Your task to perform on an android device: Go to CNN.com Image 0: 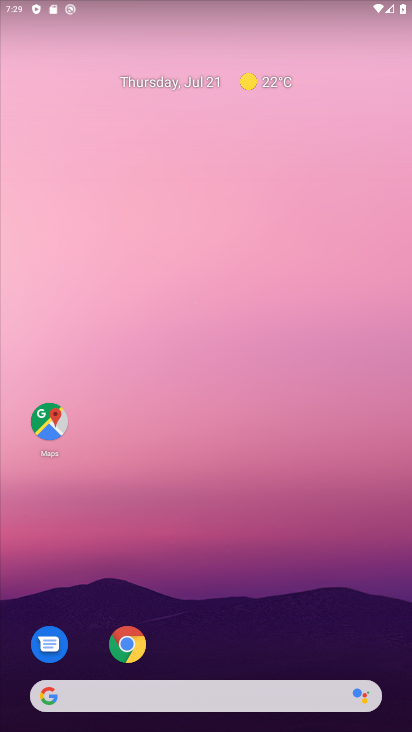
Step 0: drag from (358, 614) to (361, 146)
Your task to perform on an android device: Go to CNN.com Image 1: 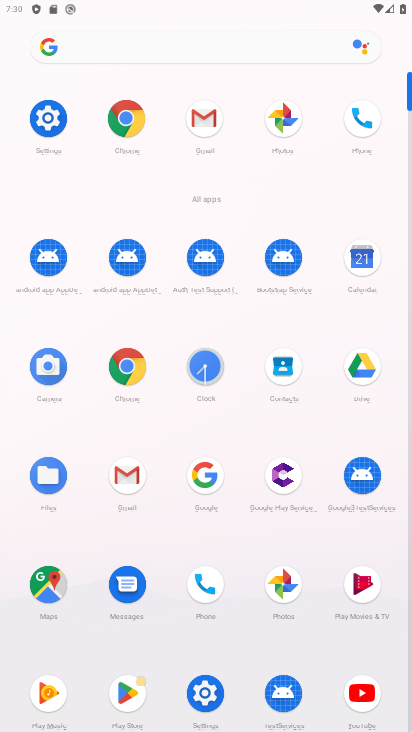
Step 1: click (124, 368)
Your task to perform on an android device: Go to CNN.com Image 2: 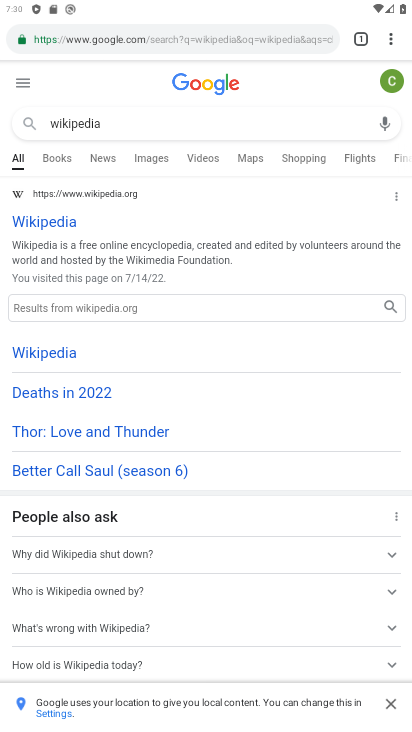
Step 2: click (147, 39)
Your task to perform on an android device: Go to CNN.com Image 3: 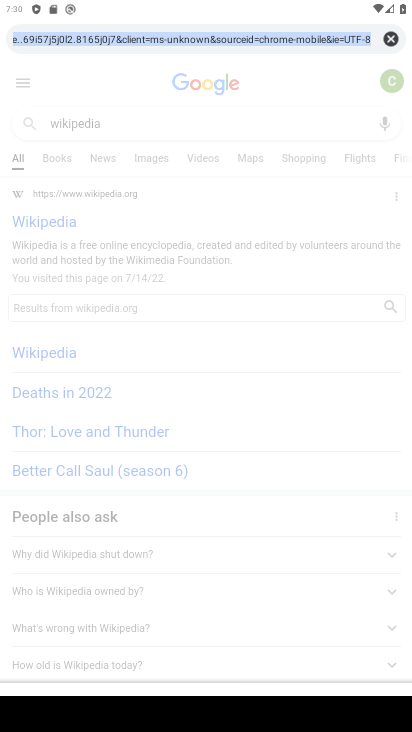
Step 3: type "cnn.com"
Your task to perform on an android device: Go to CNN.com Image 4: 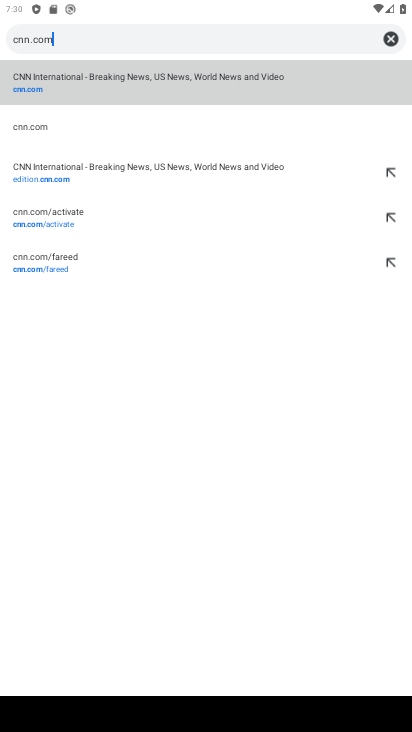
Step 4: click (283, 90)
Your task to perform on an android device: Go to CNN.com Image 5: 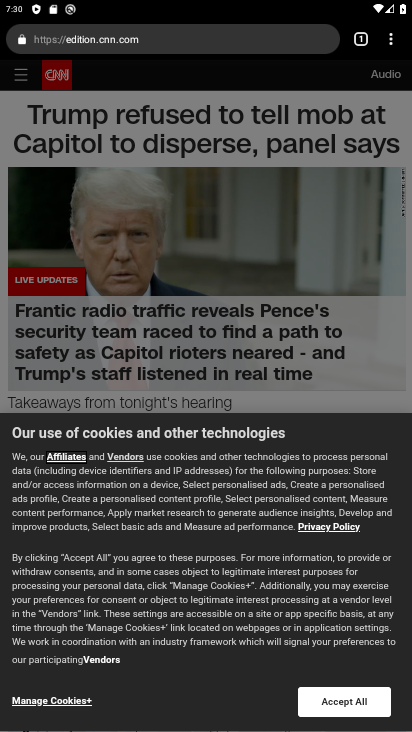
Step 5: task complete